Your task to perform on an android device: empty trash in the gmail app Image 0: 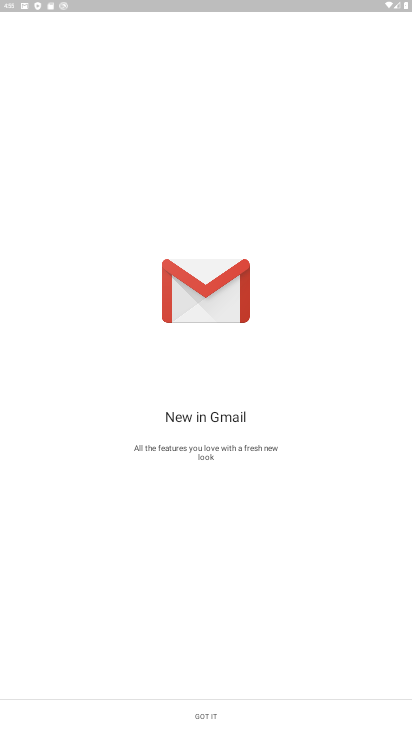
Step 0: click (200, 718)
Your task to perform on an android device: empty trash in the gmail app Image 1: 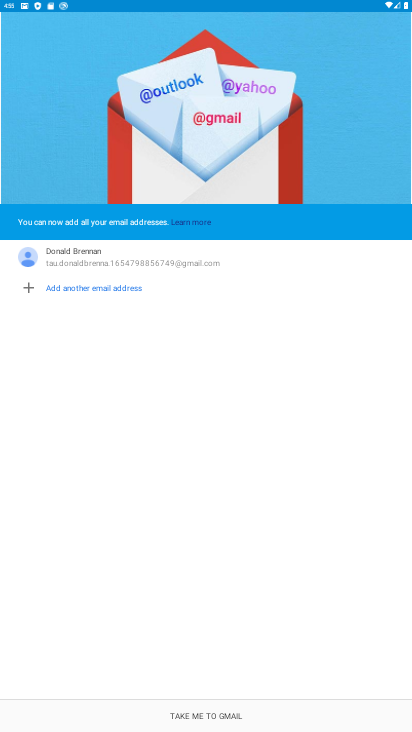
Step 1: click (200, 718)
Your task to perform on an android device: empty trash in the gmail app Image 2: 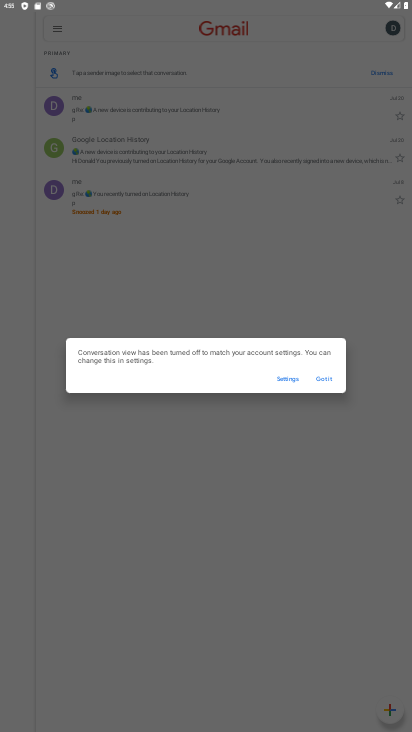
Step 2: click (325, 375)
Your task to perform on an android device: empty trash in the gmail app Image 3: 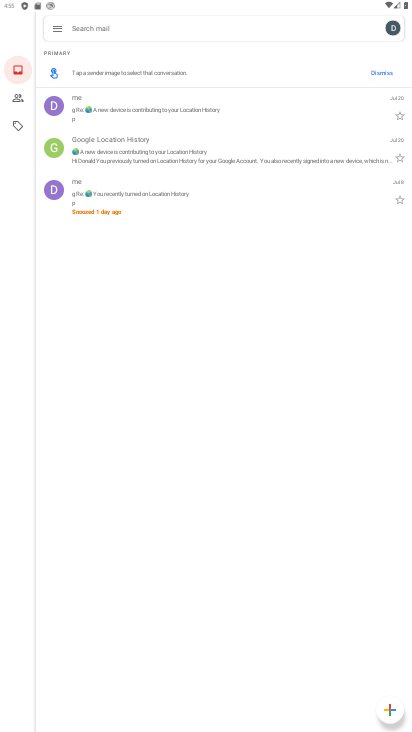
Step 3: click (55, 29)
Your task to perform on an android device: empty trash in the gmail app Image 4: 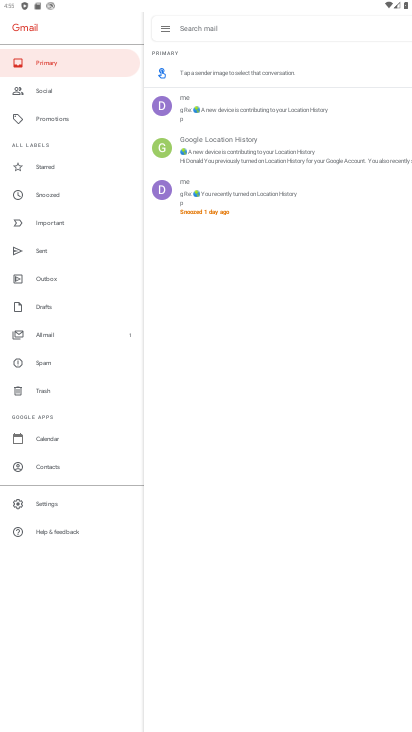
Step 4: click (36, 391)
Your task to perform on an android device: empty trash in the gmail app Image 5: 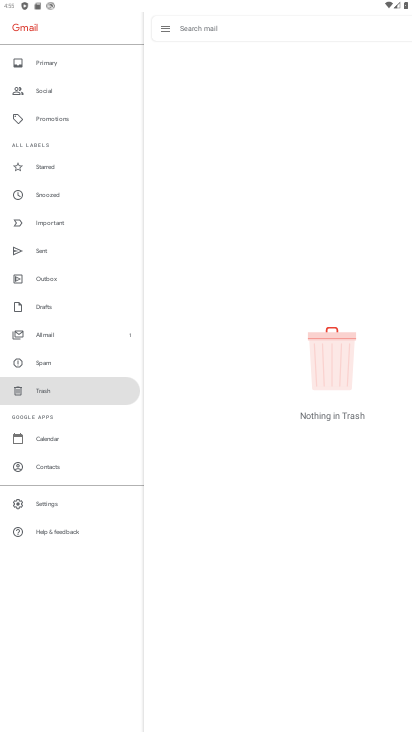
Step 5: task complete